Your task to perform on an android device: Open Google Image 0: 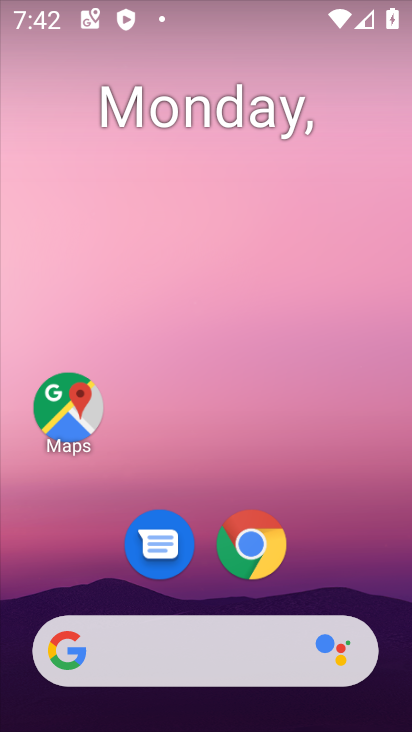
Step 0: click (78, 647)
Your task to perform on an android device: Open Google Image 1: 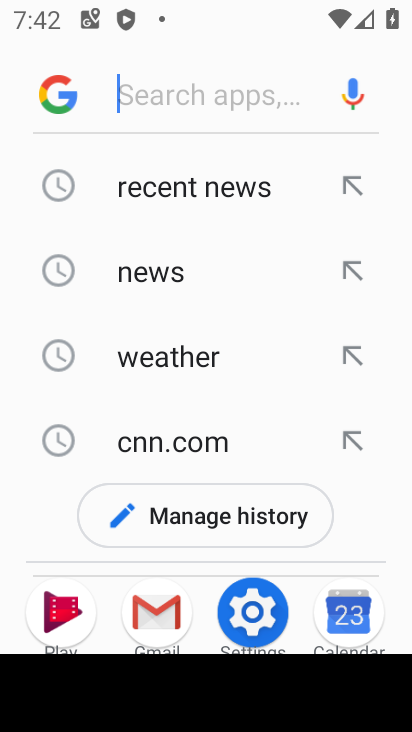
Step 1: click (65, 106)
Your task to perform on an android device: Open Google Image 2: 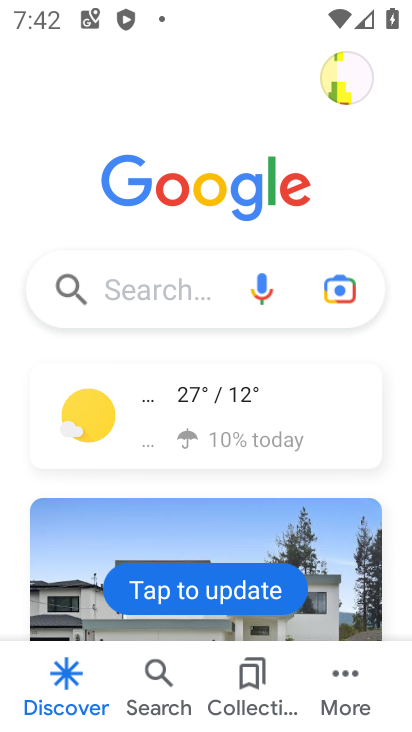
Step 2: task complete